Your task to perform on an android device: toggle data saver in the chrome app Image 0: 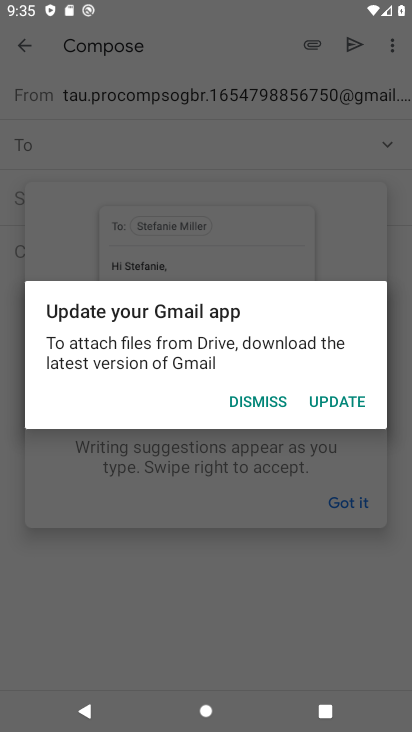
Step 0: press back button
Your task to perform on an android device: toggle data saver in the chrome app Image 1: 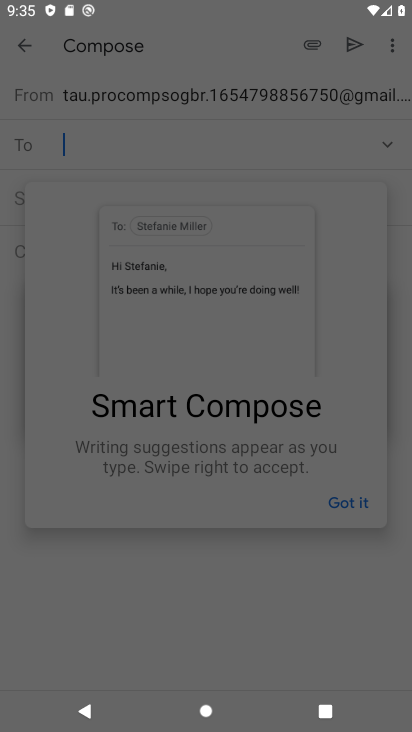
Step 1: press home button
Your task to perform on an android device: toggle data saver in the chrome app Image 2: 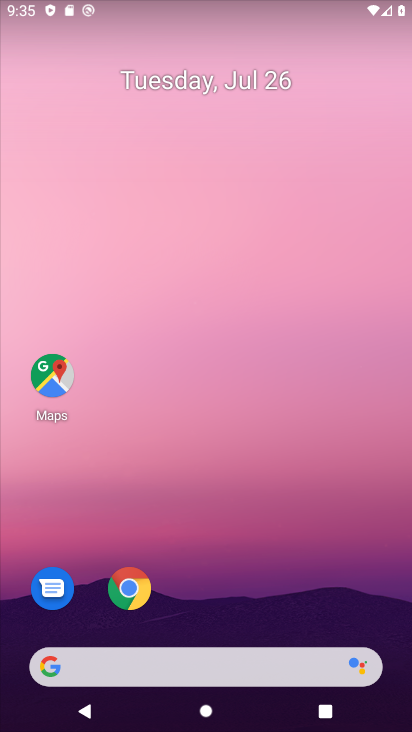
Step 2: click (137, 592)
Your task to perform on an android device: toggle data saver in the chrome app Image 3: 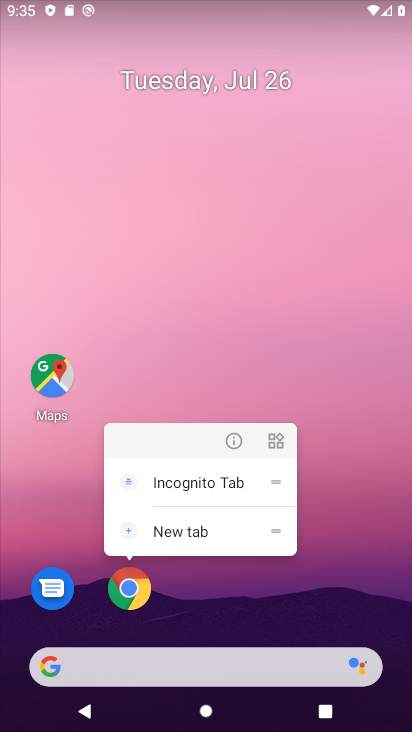
Step 3: click (111, 586)
Your task to perform on an android device: toggle data saver in the chrome app Image 4: 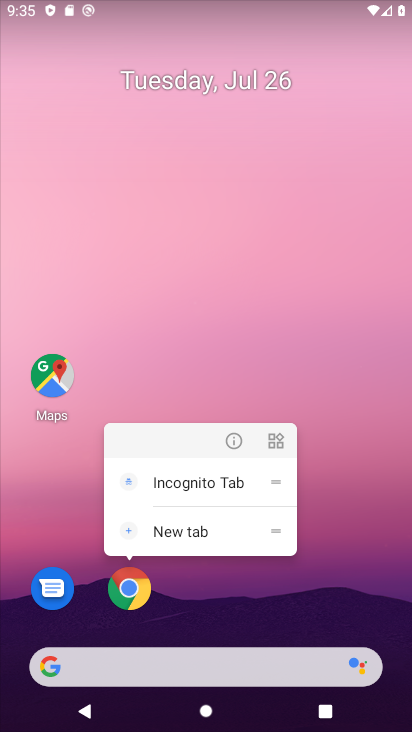
Step 4: click (124, 591)
Your task to perform on an android device: toggle data saver in the chrome app Image 5: 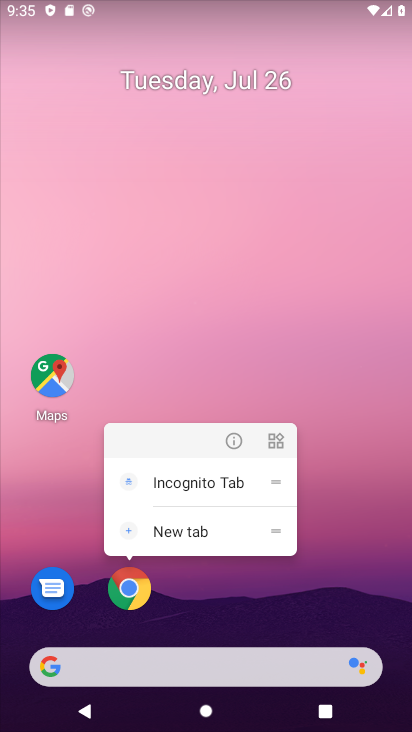
Step 5: click (128, 590)
Your task to perform on an android device: toggle data saver in the chrome app Image 6: 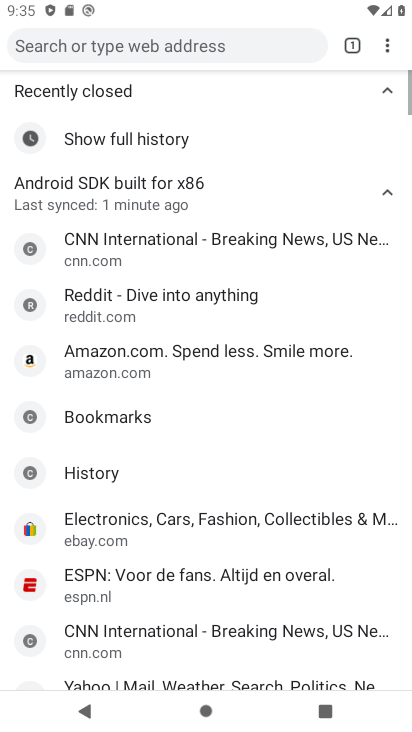
Step 6: drag from (385, 47) to (227, 384)
Your task to perform on an android device: toggle data saver in the chrome app Image 7: 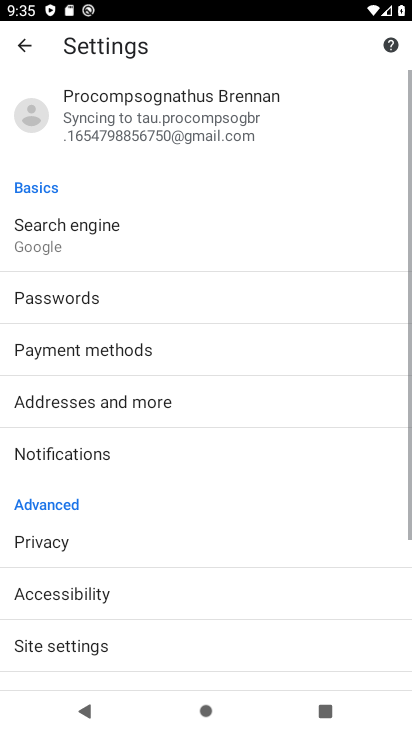
Step 7: drag from (168, 585) to (311, 52)
Your task to perform on an android device: toggle data saver in the chrome app Image 8: 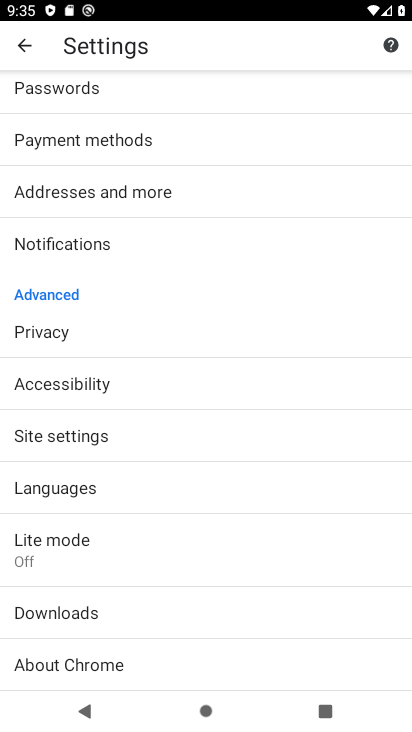
Step 8: click (50, 545)
Your task to perform on an android device: toggle data saver in the chrome app Image 9: 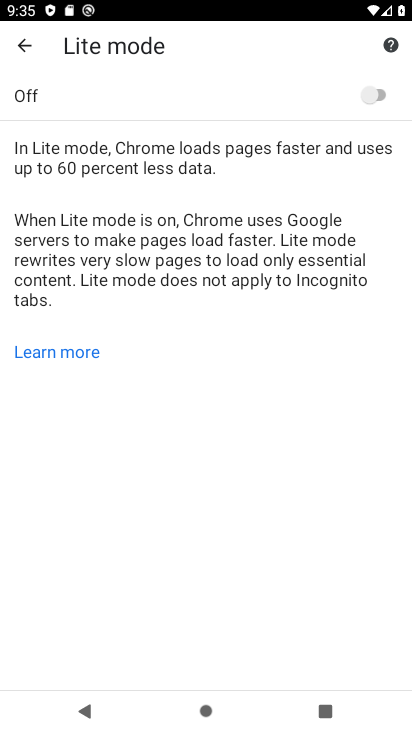
Step 9: click (378, 99)
Your task to perform on an android device: toggle data saver in the chrome app Image 10: 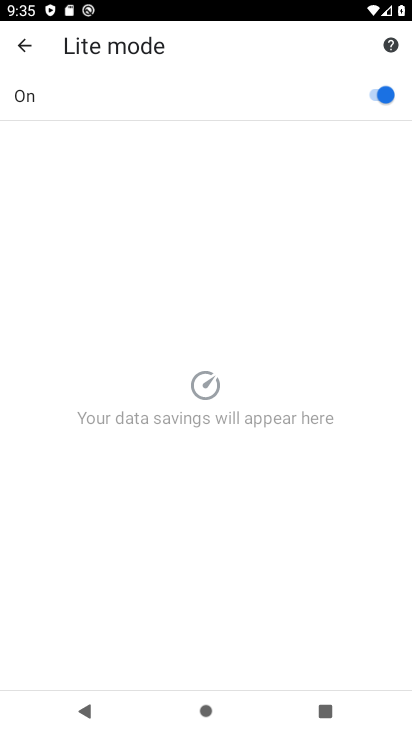
Step 10: task complete